Your task to perform on an android device: toggle javascript in the chrome app Image 0: 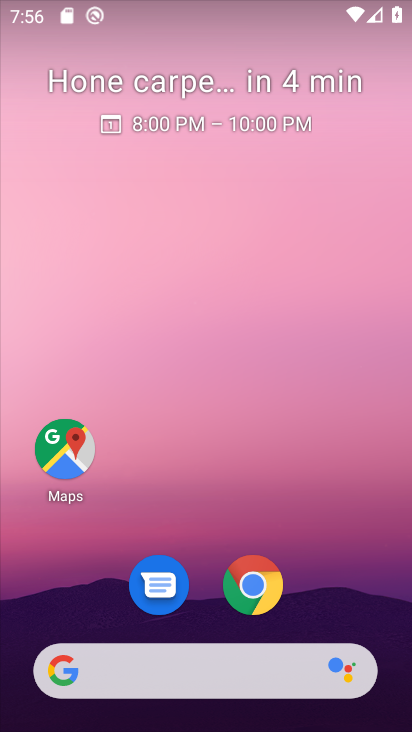
Step 0: click (261, 581)
Your task to perform on an android device: toggle javascript in the chrome app Image 1: 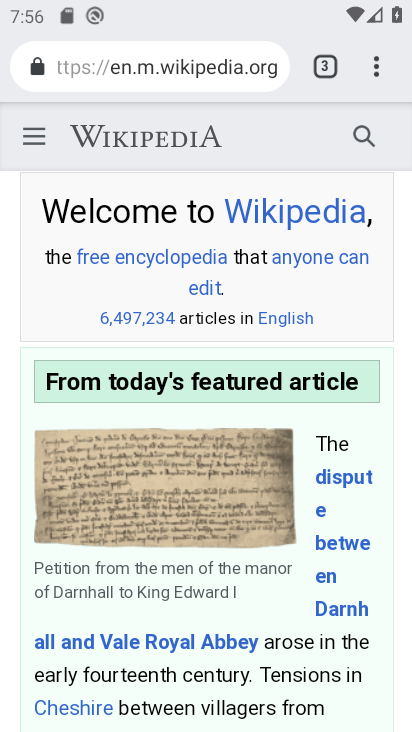
Step 1: click (374, 66)
Your task to perform on an android device: toggle javascript in the chrome app Image 2: 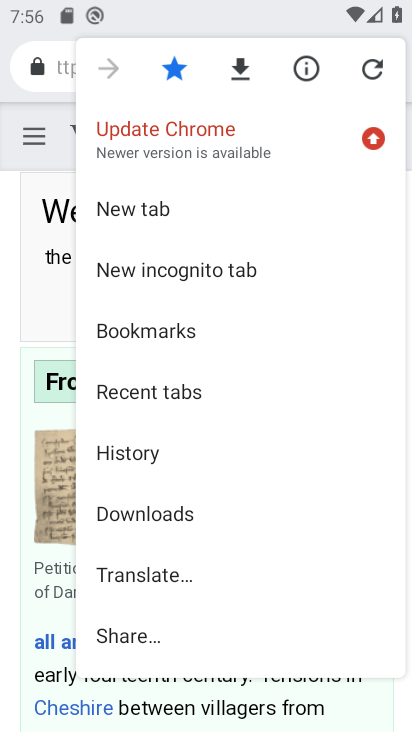
Step 2: drag from (259, 483) to (270, 235)
Your task to perform on an android device: toggle javascript in the chrome app Image 3: 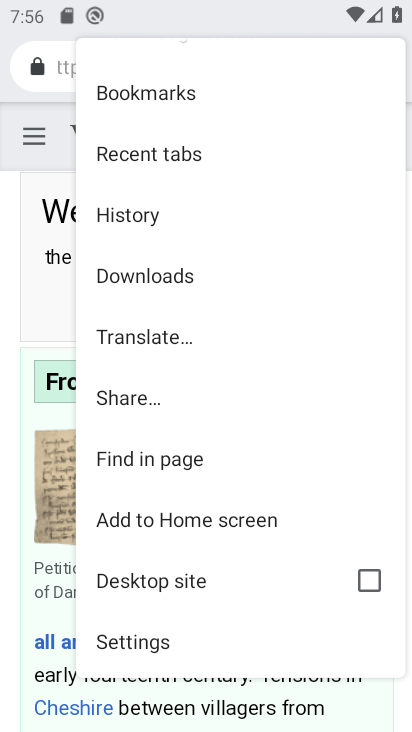
Step 3: click (139, 634)
Your task to perform on an android device: toggle javascript in the chrome app Image 4: 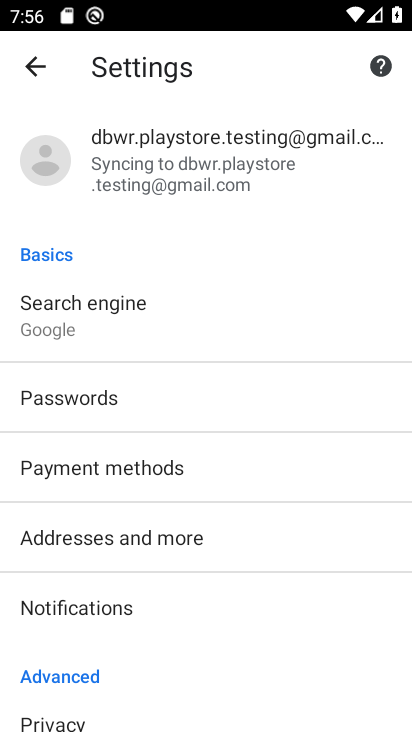
Step 4: drag from (235, 581) to (260, 208)
Your task to perform on an android device: toggle javascript in the chrome app Image 5: 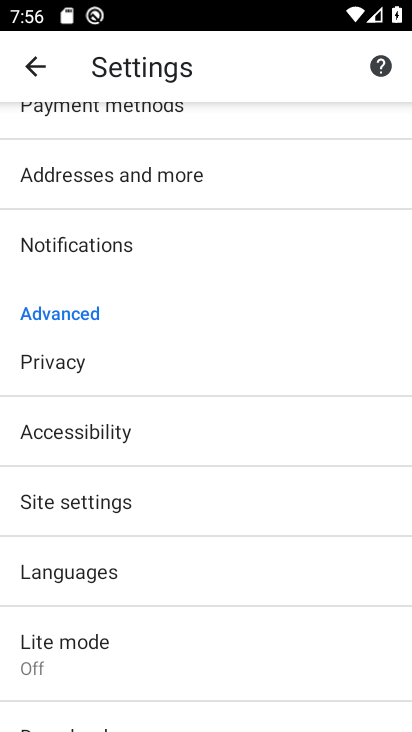
Step 5: click (220, 522)
Your task to perform on an android device: toggle javascript in the chrome app Image 6: 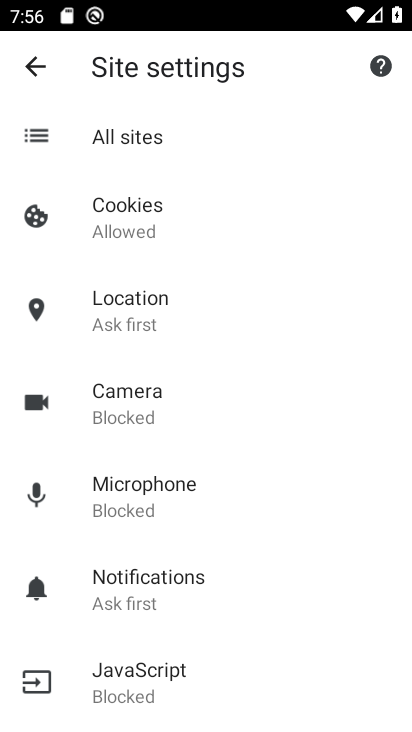
Step 6: click (200, 682)
Your task to perform on an android device: toggle javascript in the chrome app Image 7: 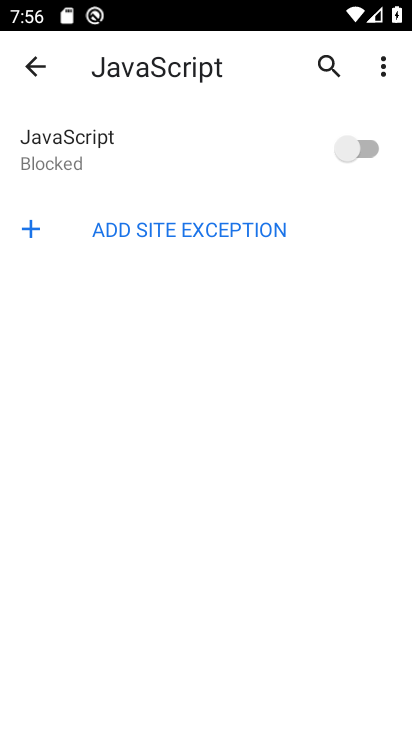
Step 7: click (353, 147)
Your task to perform on an android device: toggle javascript in the chrome app Image 8: 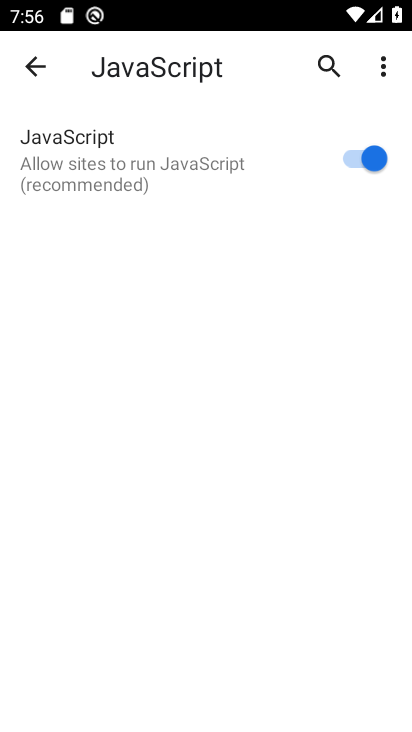
Step 8: task complete